Your task to perform on an android device: star an email in the gmail app Image 0: 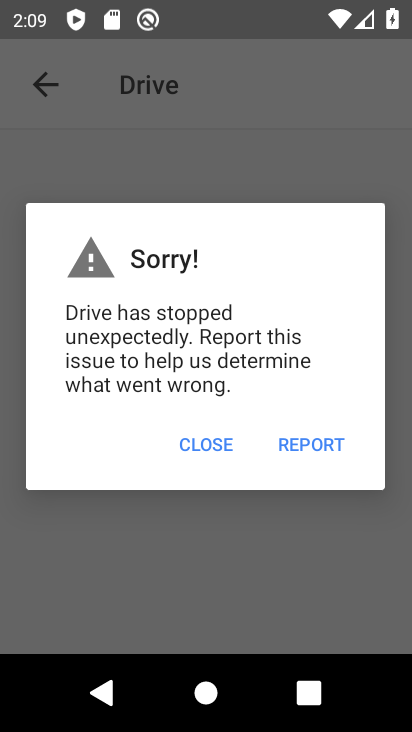
Step 0: press home button
Your task to perform on an android device: star an email in the gmail app Image 1: 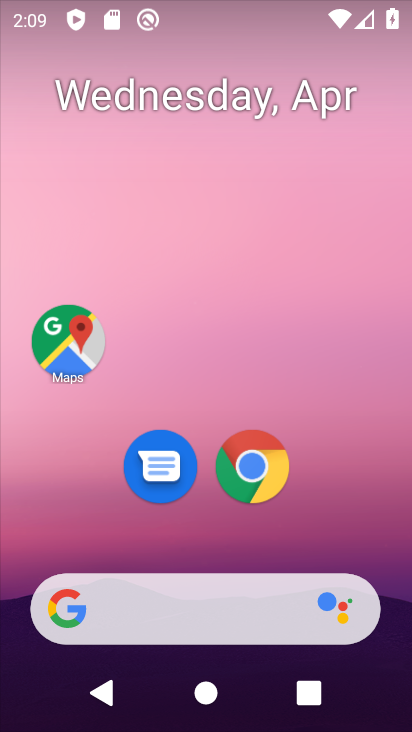
Step 1: drag from (197, 553) to (272, 143)
Your task to perform on an android device: star an email in the gmail app Image 2: 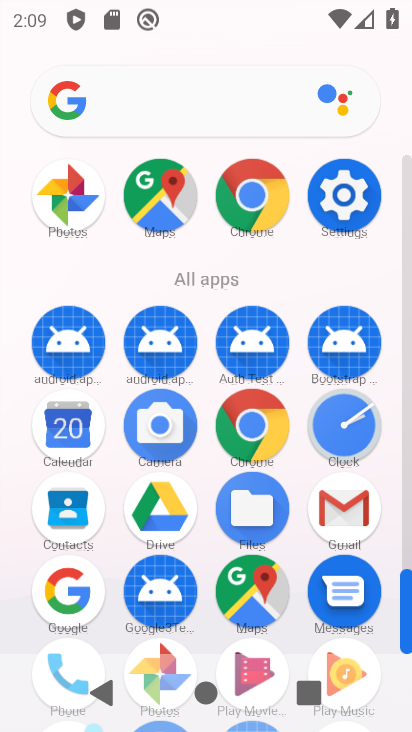
Step 2: click (348, 502)
Your task to perform on an android device: star an email in the gmail app Image 3: 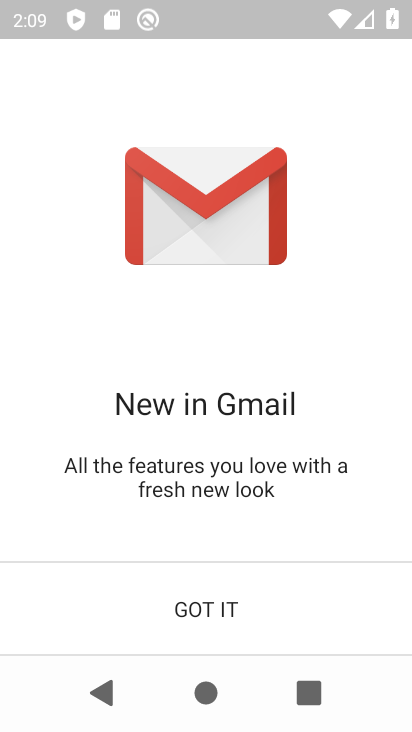
Step 3: click (209, 594)
Your task to perform on an android device: star an email in the gmail app Image 4: 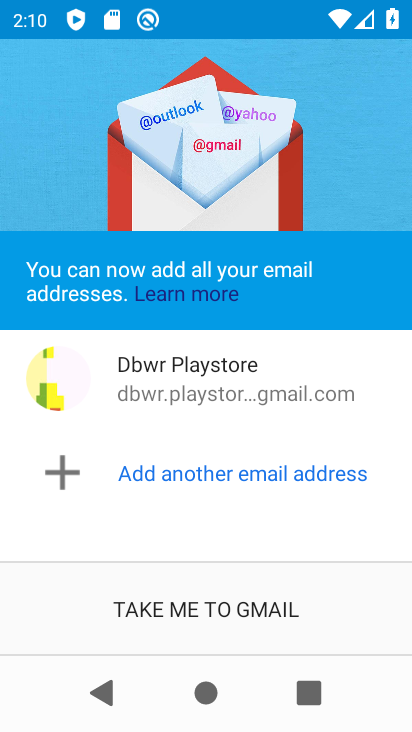
Step 4: click (209, 594)
Your task to perform on an android device: star an email in the gmail app Image 5: 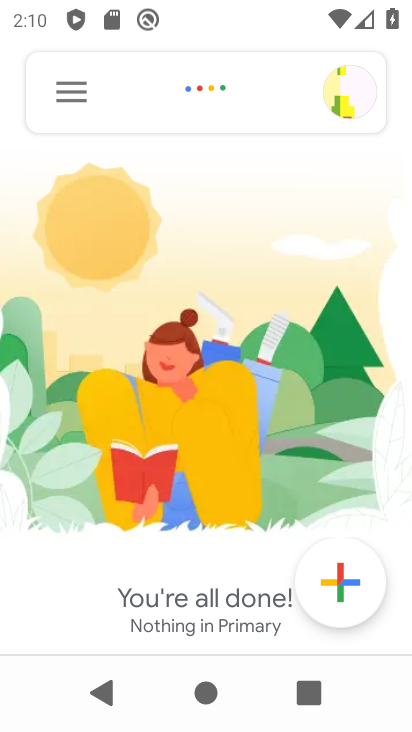
Step 5: click (76, 89)
Your task to perform on an android device: star an email in the gmail app Image 6: 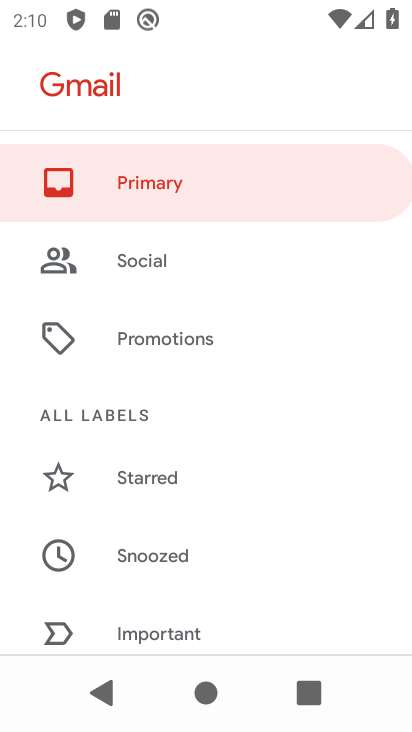
Step 6: click (168, 475)
Your task to perform on an android device: star an email in the gmail app Image 7: 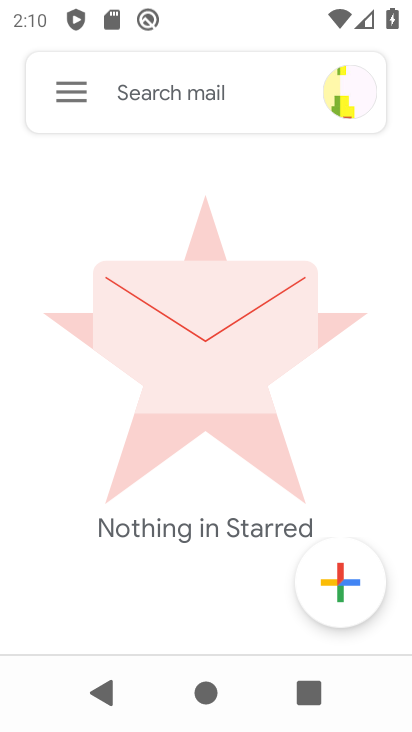
Step 7: task complete